Your task to perform on an android device: What's the weather today? Image 0: 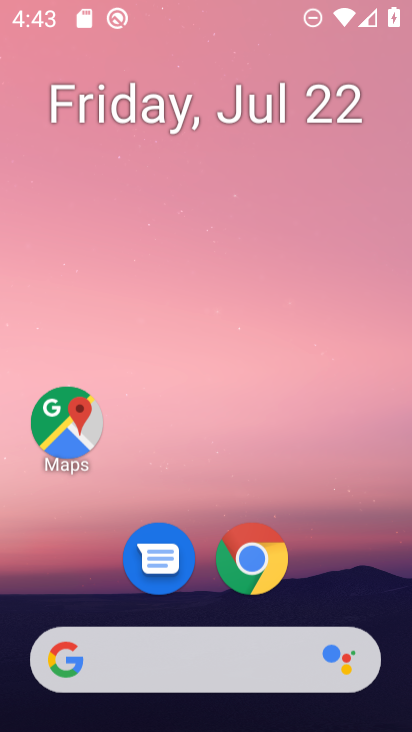
Step 0: drag from (92, 593) to (225, 4)
Your task to perform on an android device: What's the weather today? Image 1: 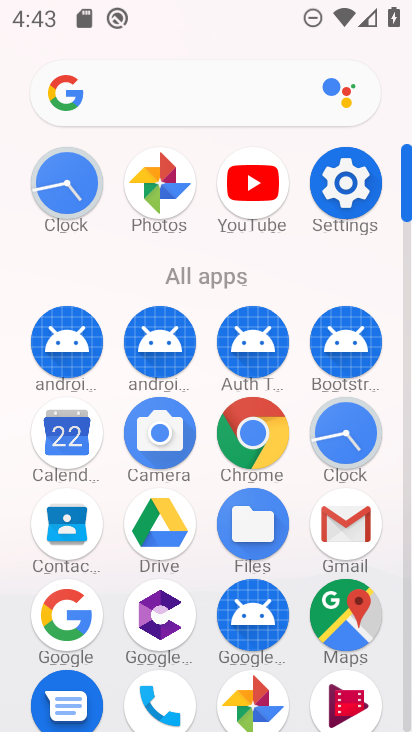
Step 1: click (130, 79)
Your task to perform on an android device: What's the weather today? Image 2: 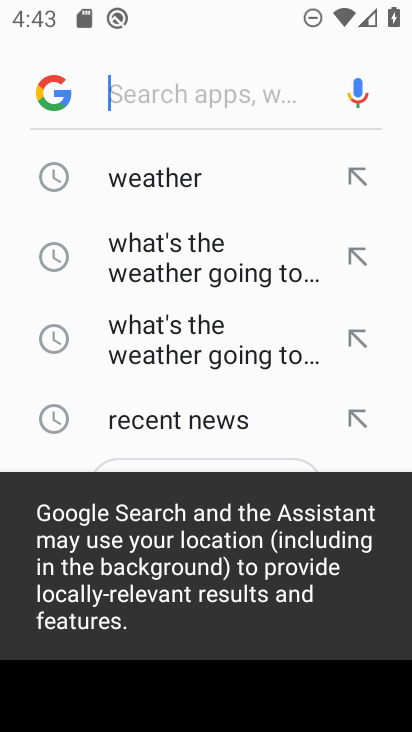
Step 2: type "weather"
Your task to perform on an android device: What's the weather today? Image 3: 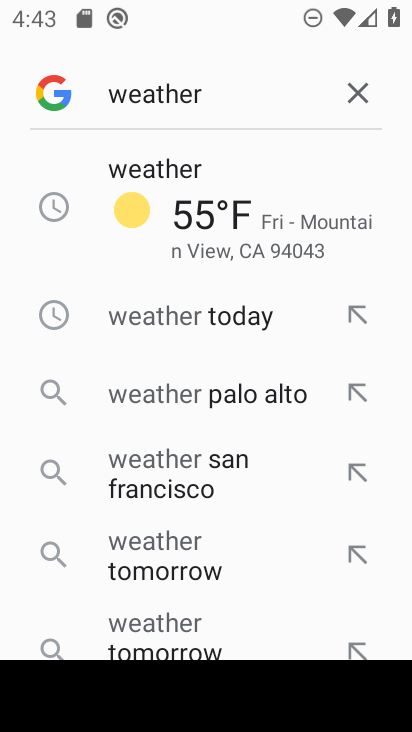
Step 3: click (179, 174)
Your task to perform on an android device: What's the weather today? Image 4: 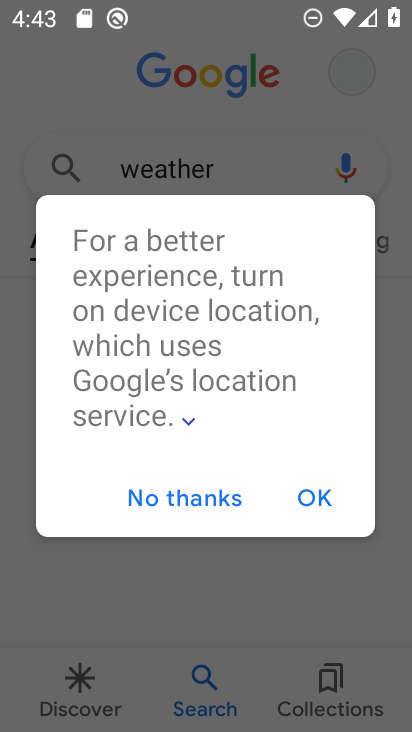
Step 4: click (308, 499)
Your task to perform on an android device: What's the weather today? Image 5: 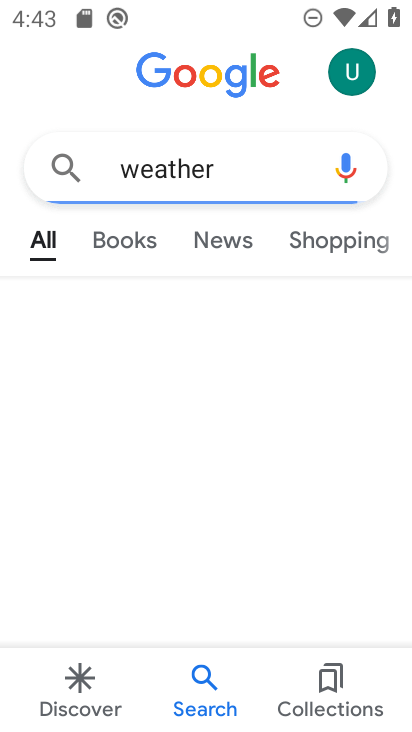
Step 5: task complete